Your task to perform on an android device: Set the phone to "Do not disturb". Image 0: 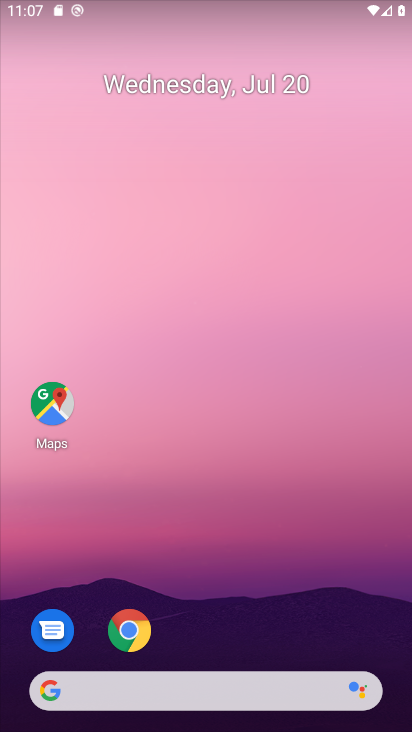
Step 0: drag from (267, 370) to (194, 64)
Your task to perform on an android device: Set the phone to "Do not disturb". Image 1: 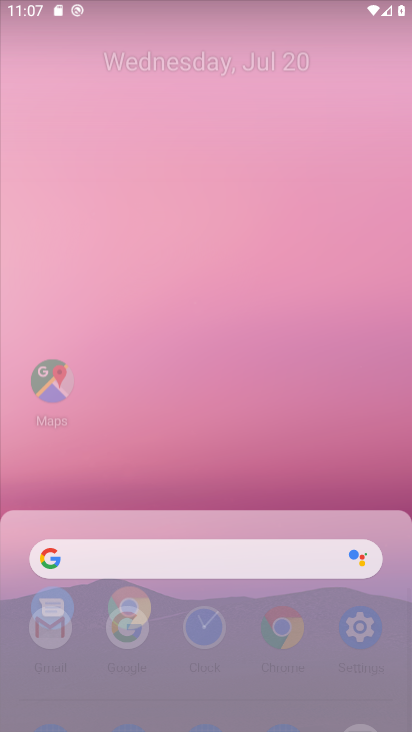
Step 1: click (201, 98)
Your task to perform on an android device: Set the phone to "Do not disturb". Image 2: 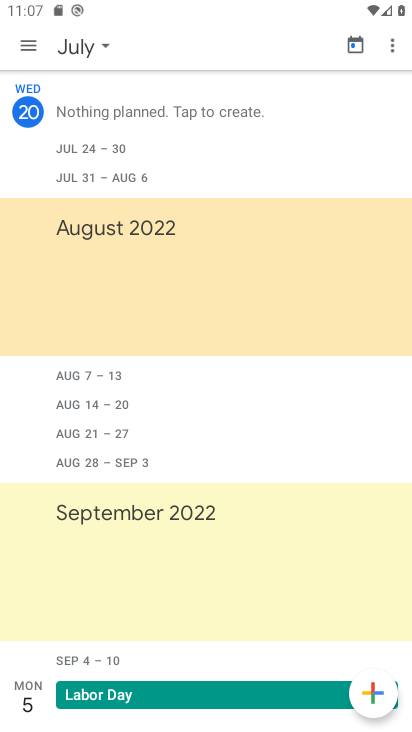
Step 2: press back button
Your task to perform on an android device: Set the phone to "Do not disturb". Image 3: 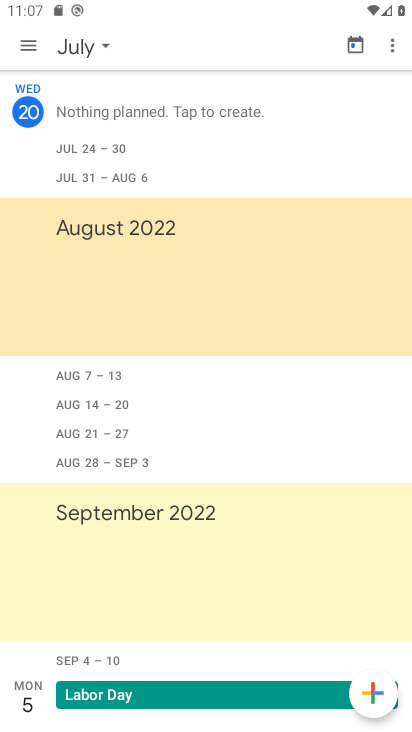
Step 3: press back button
Your task to perform on an android device: Set the phone to "Do not disturb". Image 4: 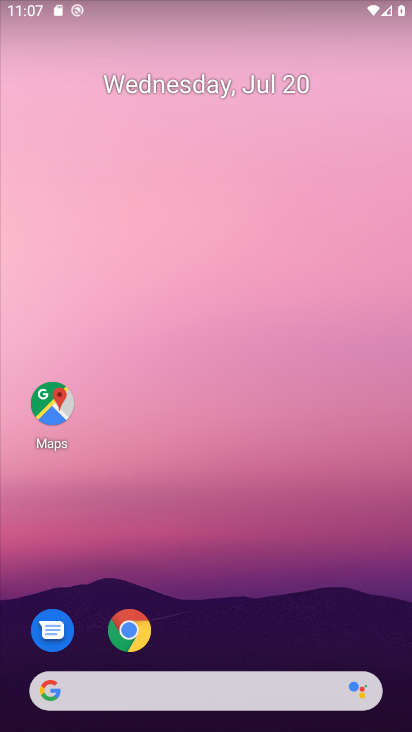
Step 4: drag from (242, 685) to (161, 366)
Your task to perform on an android device: Set the phone to "Do not disturb". Image 5: 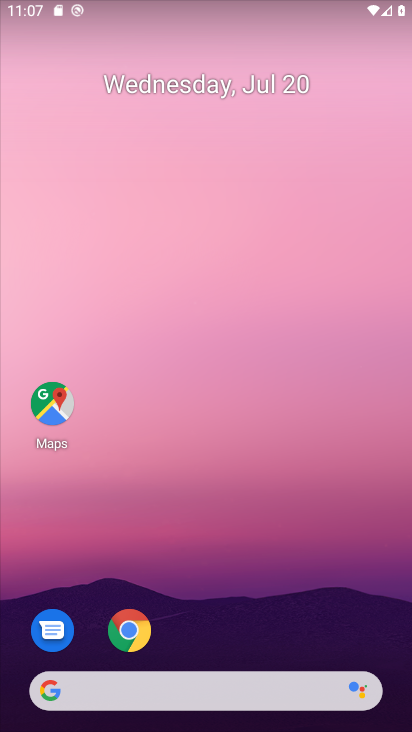
Step 5: click (207, 420)
Your task to perform on an android device: Set the phone to "Do not disturb". Image 6: 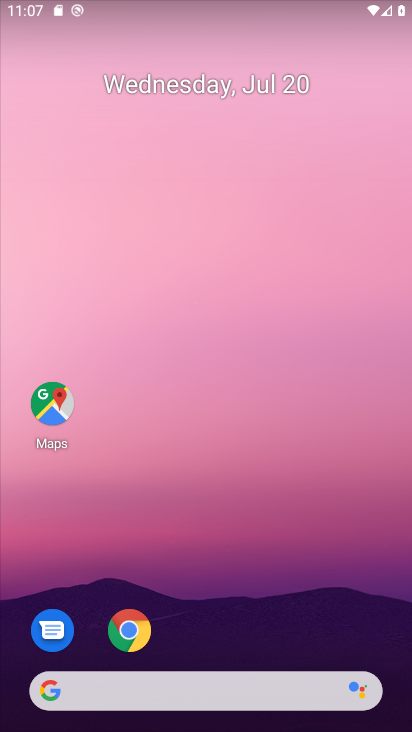
Step 6: click (150, 190)
Your task to perform on an android device: Set the phone to "Do not disturb". Image 7: 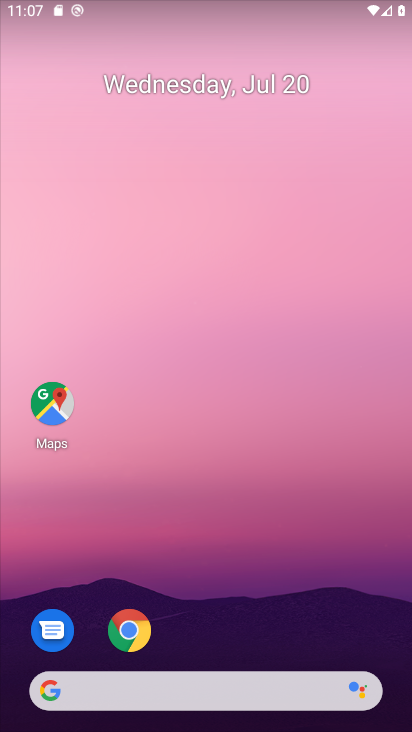
Step 7: drag from (150, 478) to (222, 205)
Your task to perform on an android device: Set the phone to "Do not disturb". Image 8: 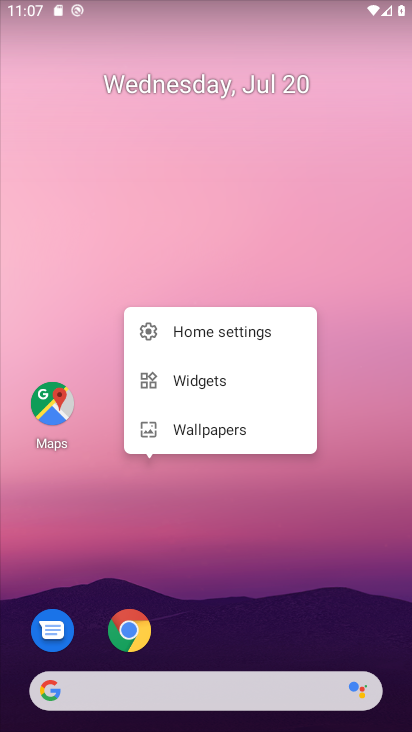
Step 8: click (89, 195)
Your task to perform on an android device: Set the phone to "Do not disturb". Image 9: 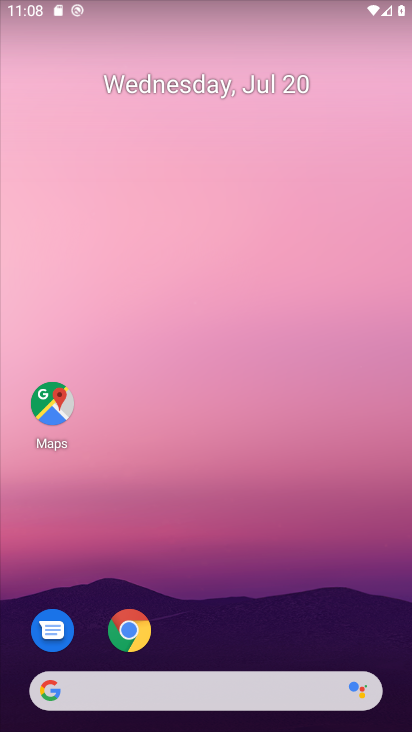
Step 9: drag from (239, 546) to (171, 70)
Your task to perform on an android device: Set the phone to "Do not disturb". Image 10: 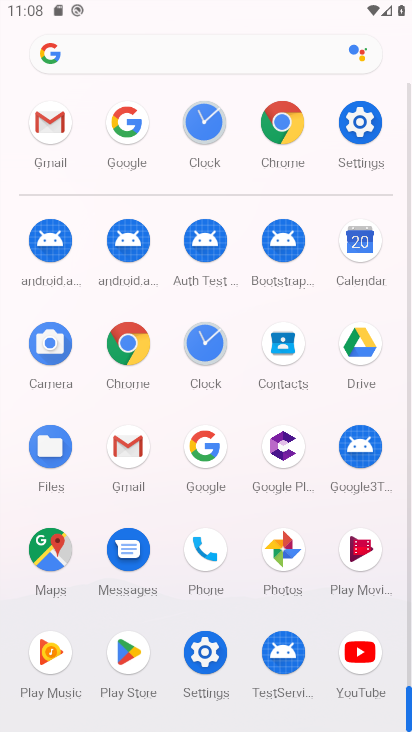
Step 10: drag from (235, 537) to (177, 227)
Your task to perform on an android device: Set the phone to "Do not disturb". Image 11: 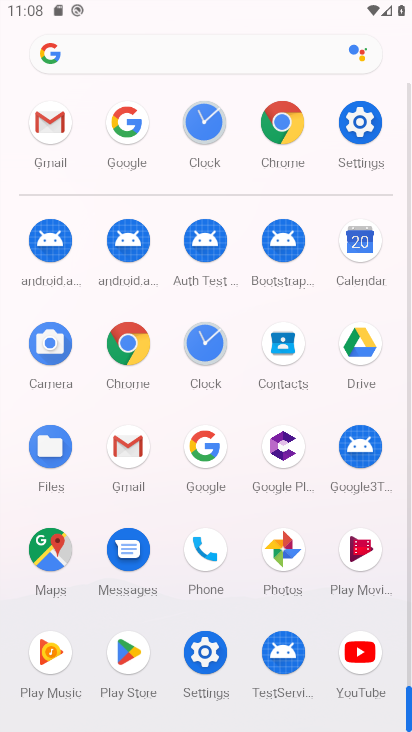
Step 11: click (367, 117)
Your task to perform on an android device: Set the phone to "Do not disturb". Image 12: 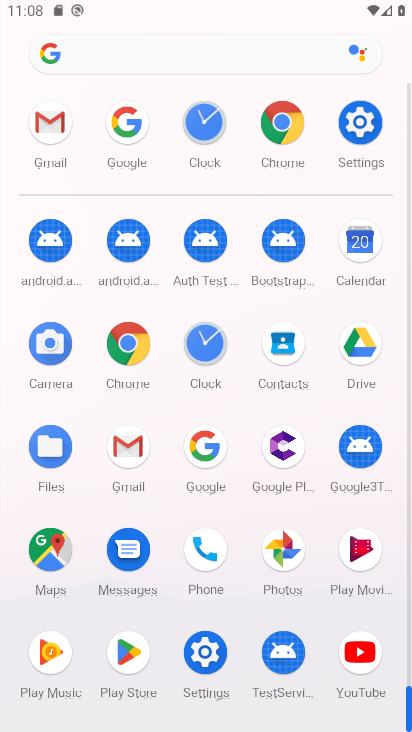
Step 12: click (367, 117)
Your task to perform on an android device: Set the phone to "Do not disturb". Image 13: 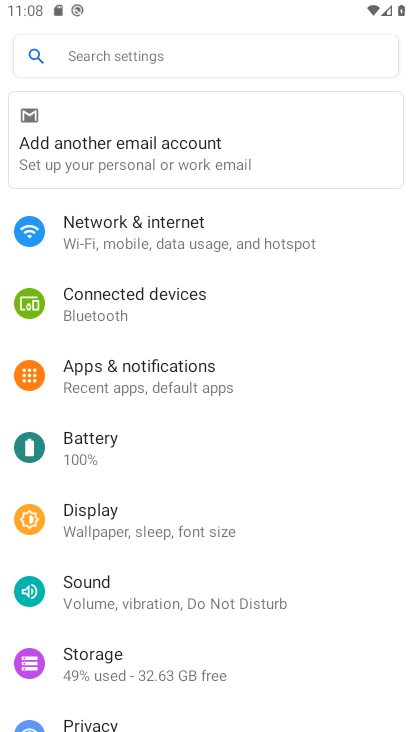
Step 13: press back button
Your task to perform on an android device: Set the phone to "Do not disturb". Image 14: 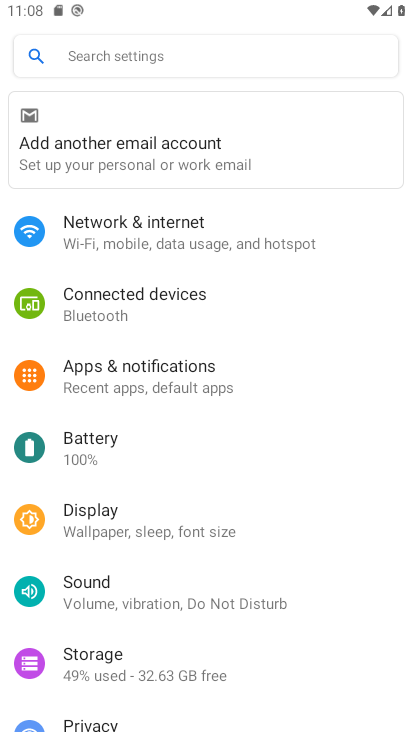
Step 14: press back button
Your task to perform on an android device: Set the phone to "Do not disturb". Image 15: 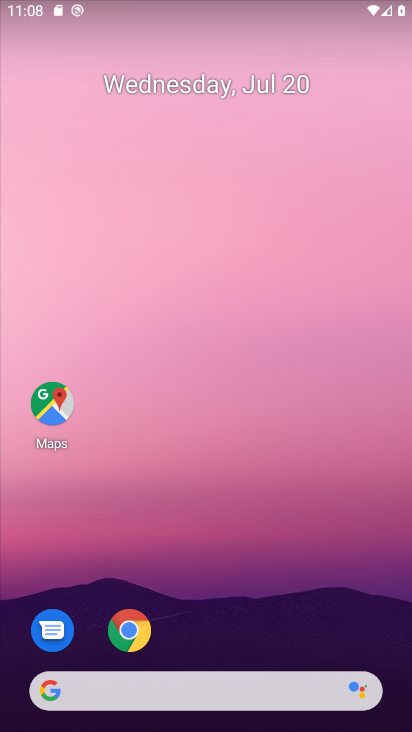
Step 15: drag from (190, 563) to (98, 168)
Your task to perform on an android device: Set the phone to "Do not disturb". Image 16: 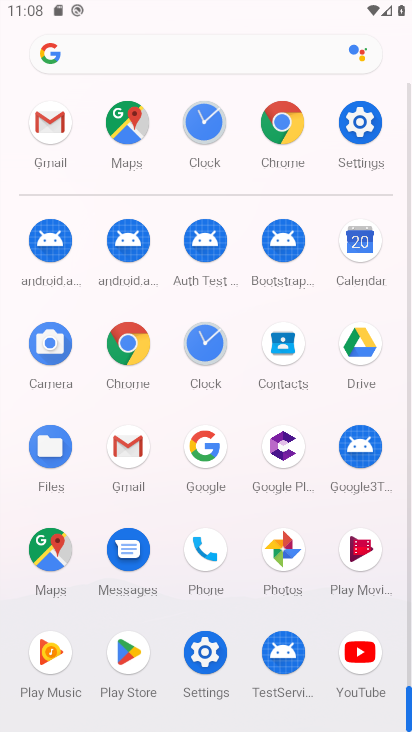
Step 16: click (372, 114)
Your task to perform on an android device: Set the phone to "Do not disturb". Image 17: 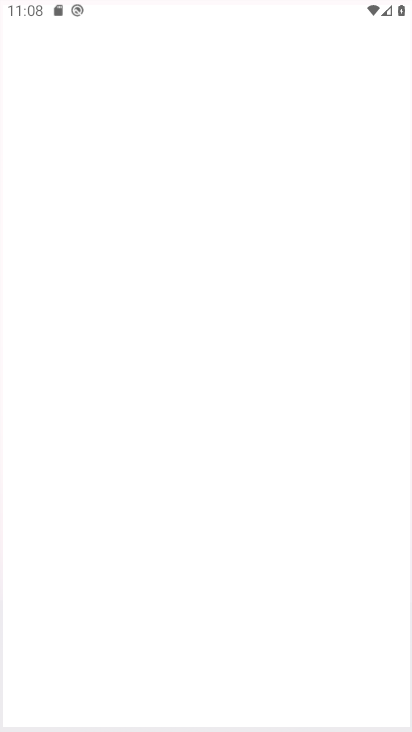
Step 17: click (361, 130)
Your task to perform on an android device: Set the phone to "Do not disturb". Image 18: 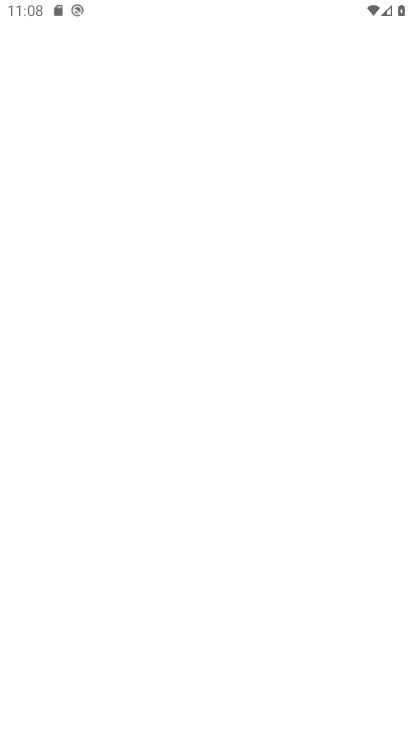
Step 18: click (361, 130)
Your task to perform on an android device: Set the phone to "Do not disturb". Image 19: 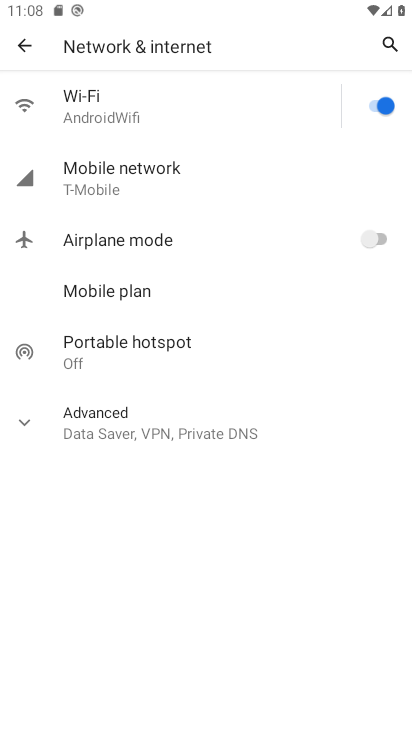
Step 19: click (12, 46)
Your task to perform on an android device: Set the phone to "Do not disturb". Image 20: 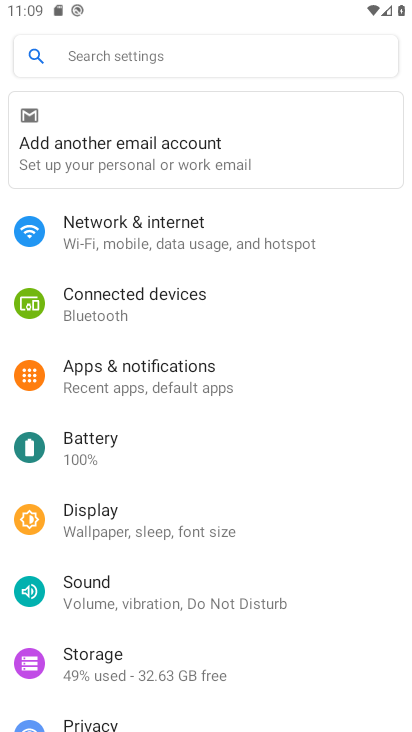
Step 20: click (105, 594)
Your task to perform on an android device: Set the phone to "Do not disturb". Image 21: 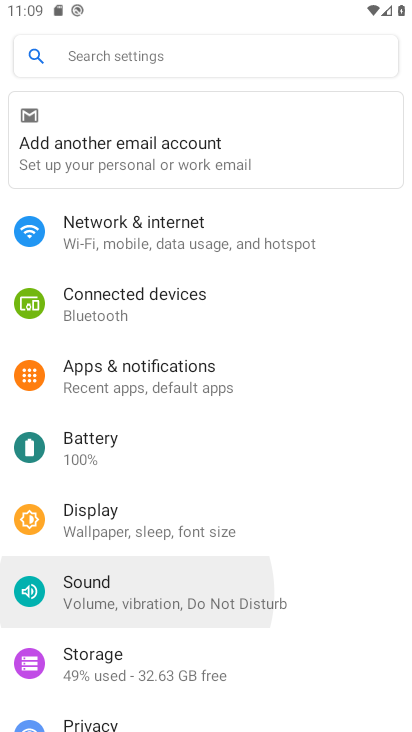
Step 21: click (104, 594)
Your task to perform on an android device: Set the phone to "Do not disturb". Image 22: 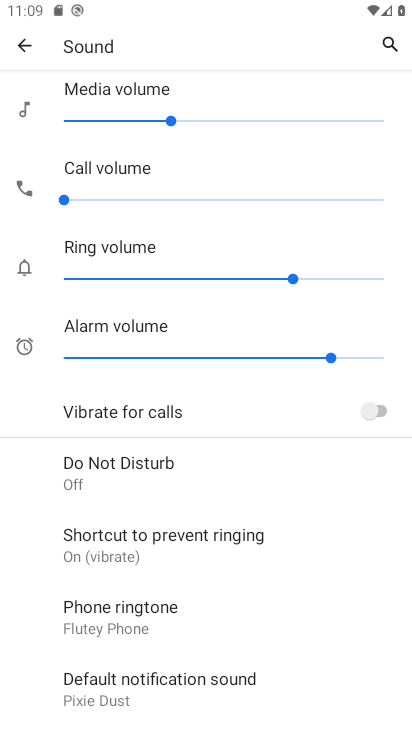
Step 22: click (106, 466)
Your task to perform on an android device: Set the phone to "Do not disturb". Image 23: 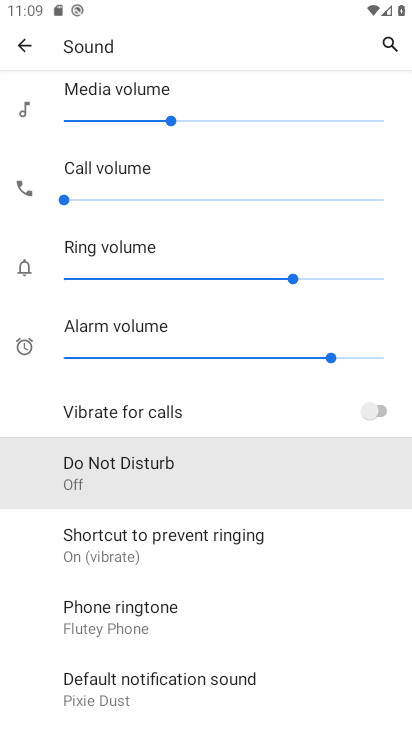
Step 23: click (105, 469)
Your task to perform on an android device: Set the phone to "Do not disturb". Image 24: 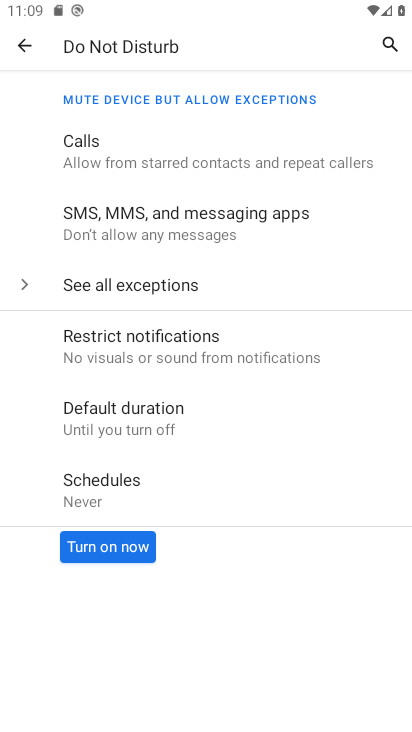
Step 24: click (104, 541)
Your task to perform on an android device: Set the phone to "Do not disturb". Image 25: 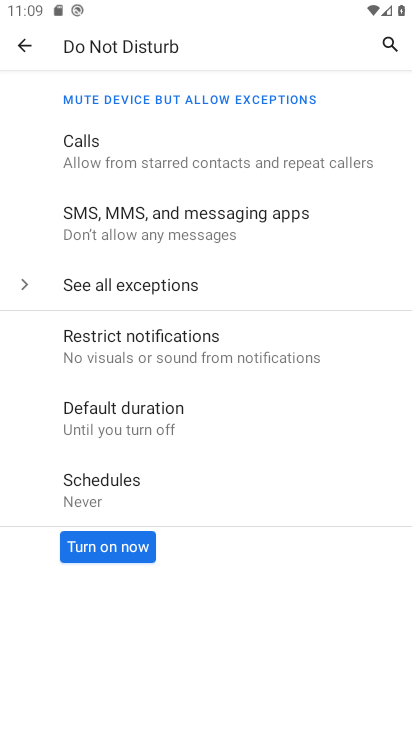
Step 25: click (104, 541)
Your task to perform on an android device: Set the phone to "Do not disturb". Image 26: 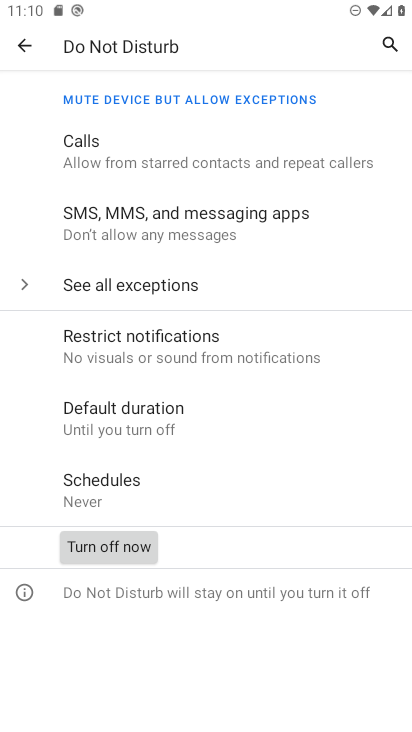
Step 26: task complete